Your task to perform on an android device: Empty the shopping cart on bestbuy.com. Search for "razer huntsman" on bestbuy.com, select the first entry, add it to the cart, then select checkout. Image 0: 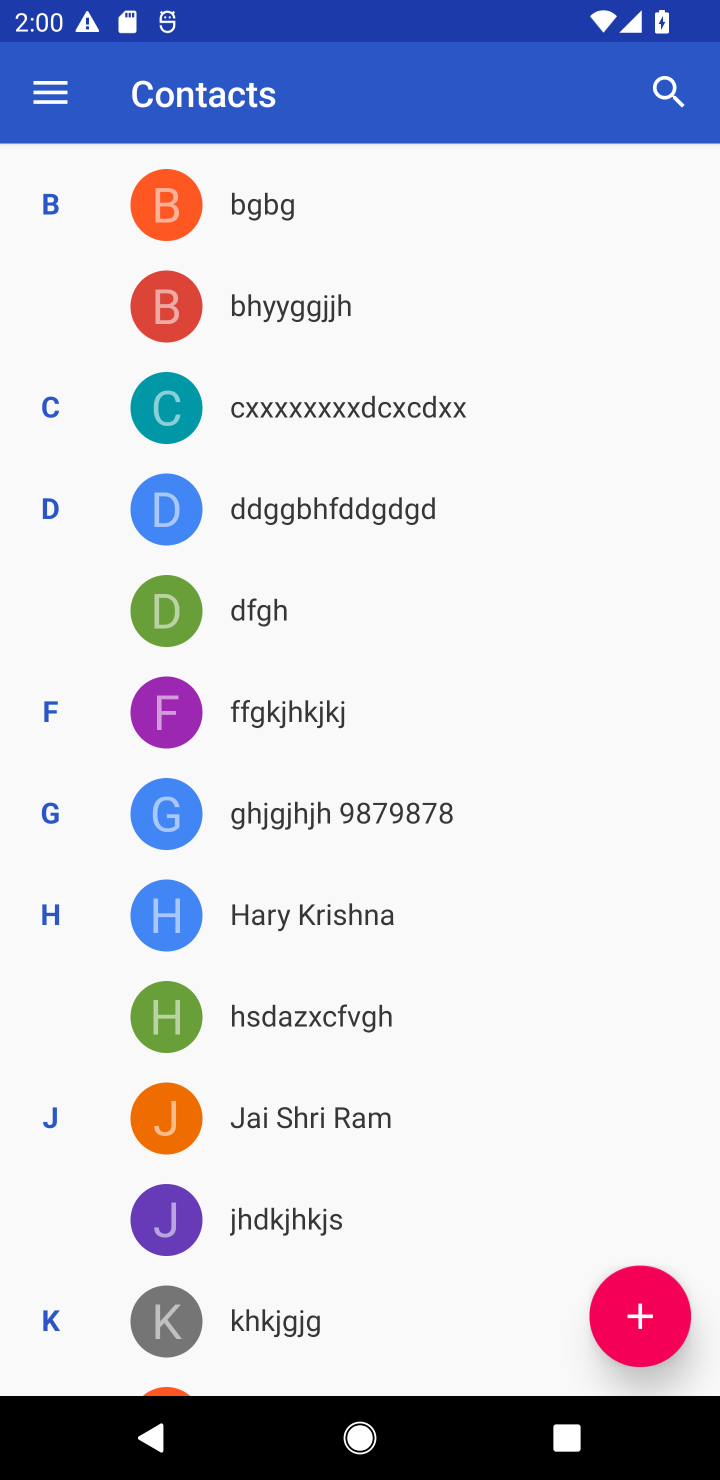
Step 0: press home button
Your task to perform on an android device: Empty the shopping cart on bestbuy.com. Search for "razer huntsman" on bestbuy.com, select the first entry, add it to the cart, then select checkout. Image 1: 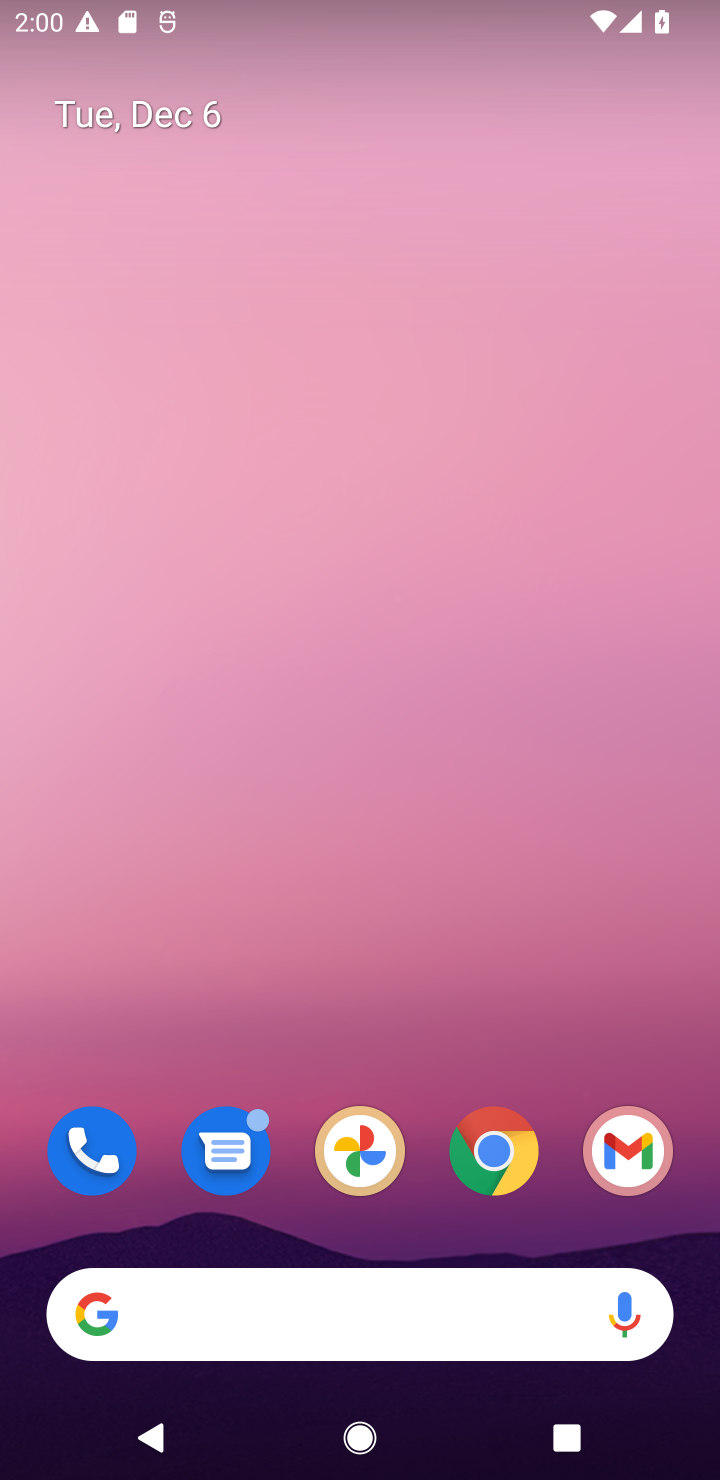
Step 1: click (502, 1160)
Your task to perform on an android device: Empty the shopping cart on bestbuy.com. Search for "razer huntsman" on bestbuy.com, select the first entry, add it to the cart, then select checkout. Image 2: 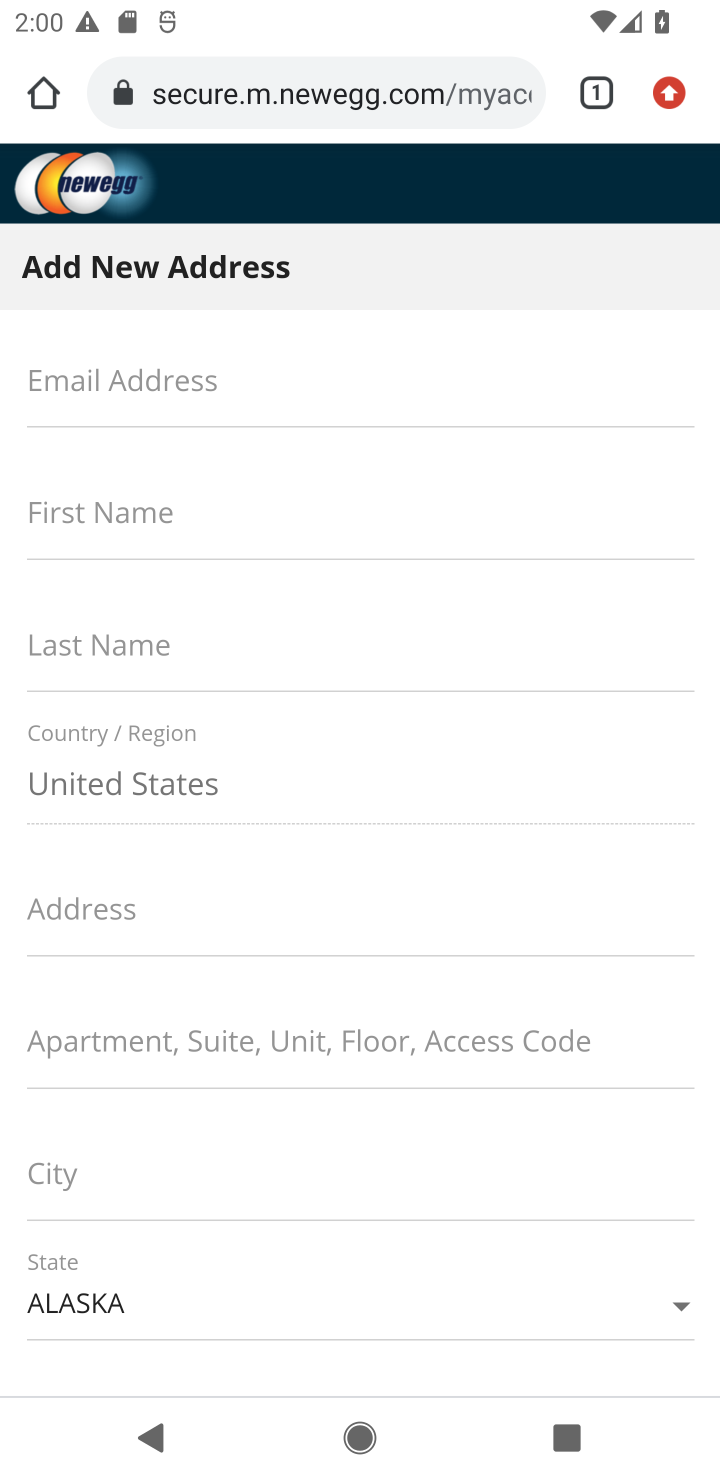
Step 2: click (285, 97)
Your task to perform on an android device: Empty the shopping cart on bestbuy.com. Search for "razer huntsman" on bestbuy.com, select the first entry, add it to the cart, then select checkout. Image 3: 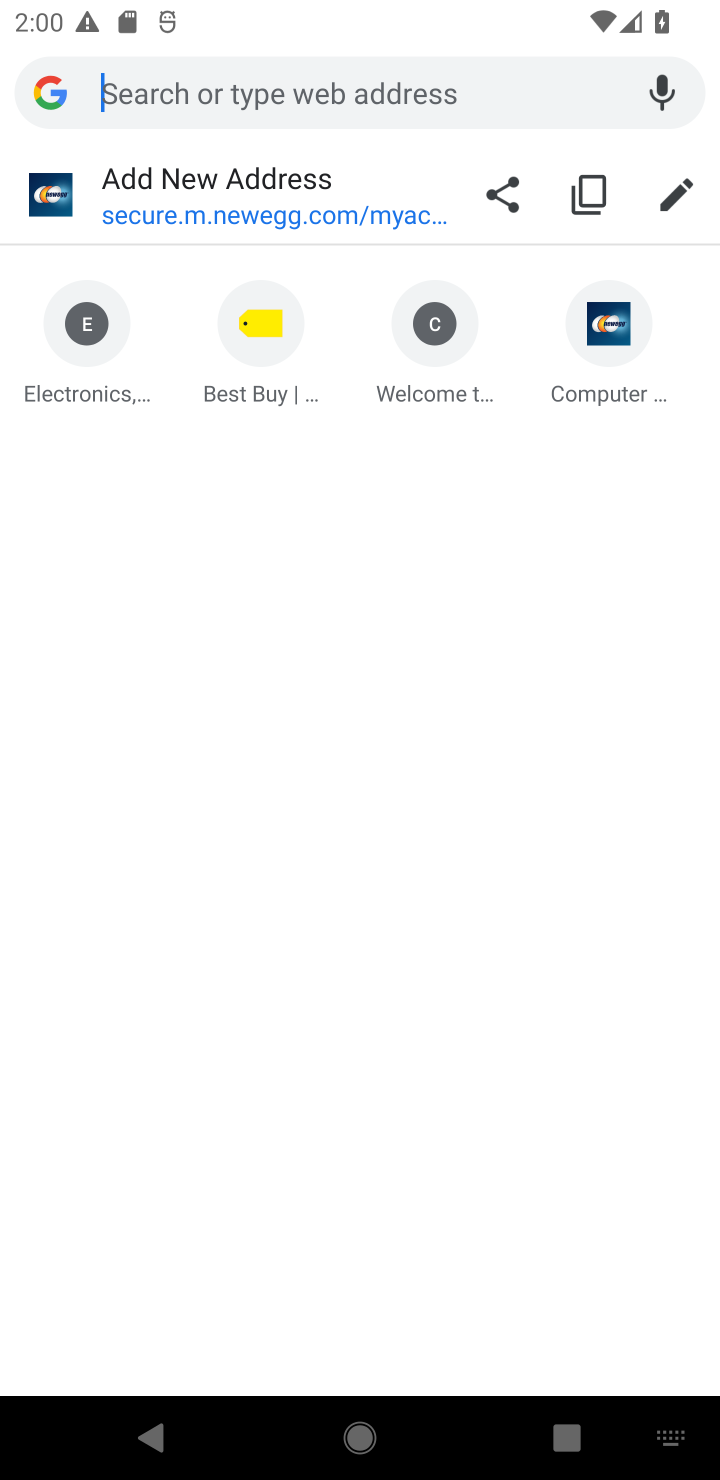
Step 3: click (254, 361)
Your task to perform on an android device: Empty the shopping cart on bestbuy.com. Search for "razer huntsman" on bestbuy.com, select the first entry, add it to the cart, then select checkout. Image 4: 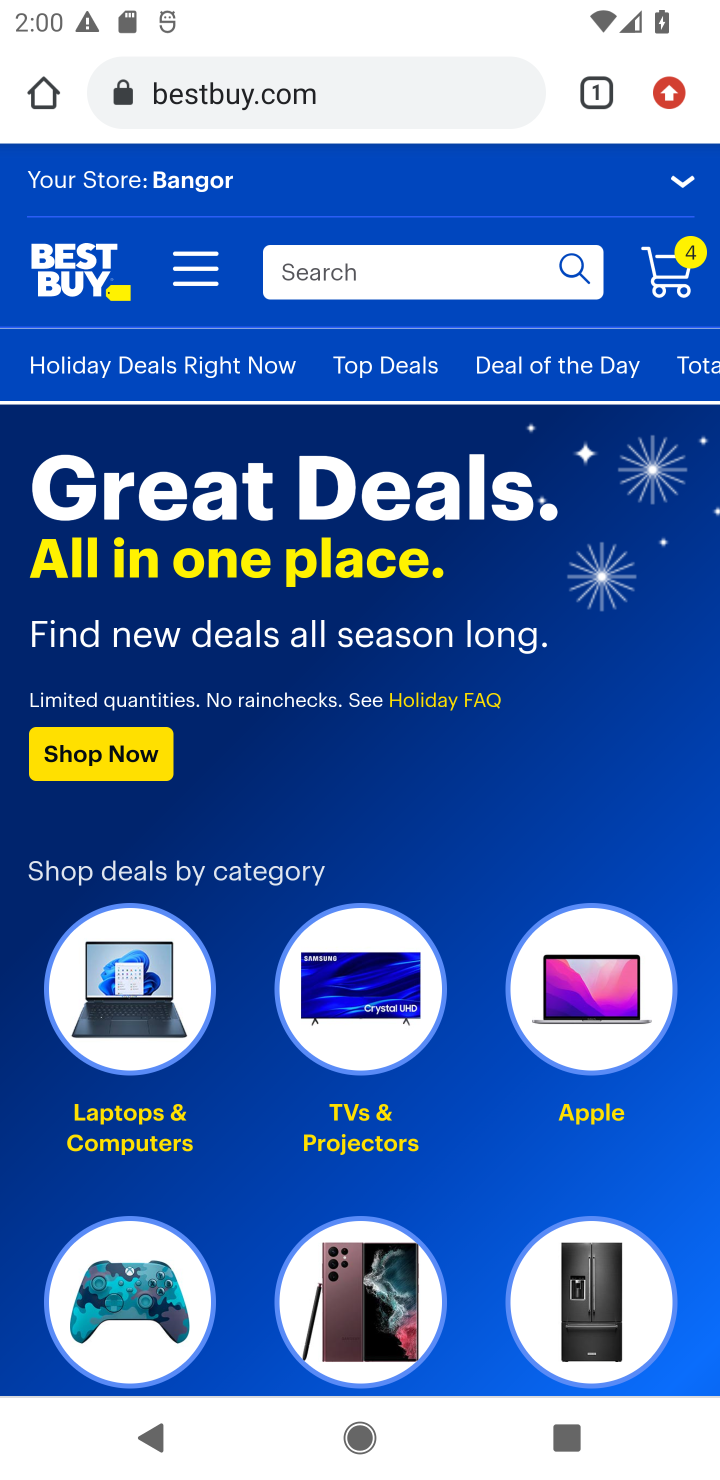
Step 4: click (668, 273)
Your task to perform on an android device: Empty the shopping cart on bestbuy.com. Search for "razer huntsman" on bestbuy.com, select the first entry, add it to the cart, then select checkout. Image 5: 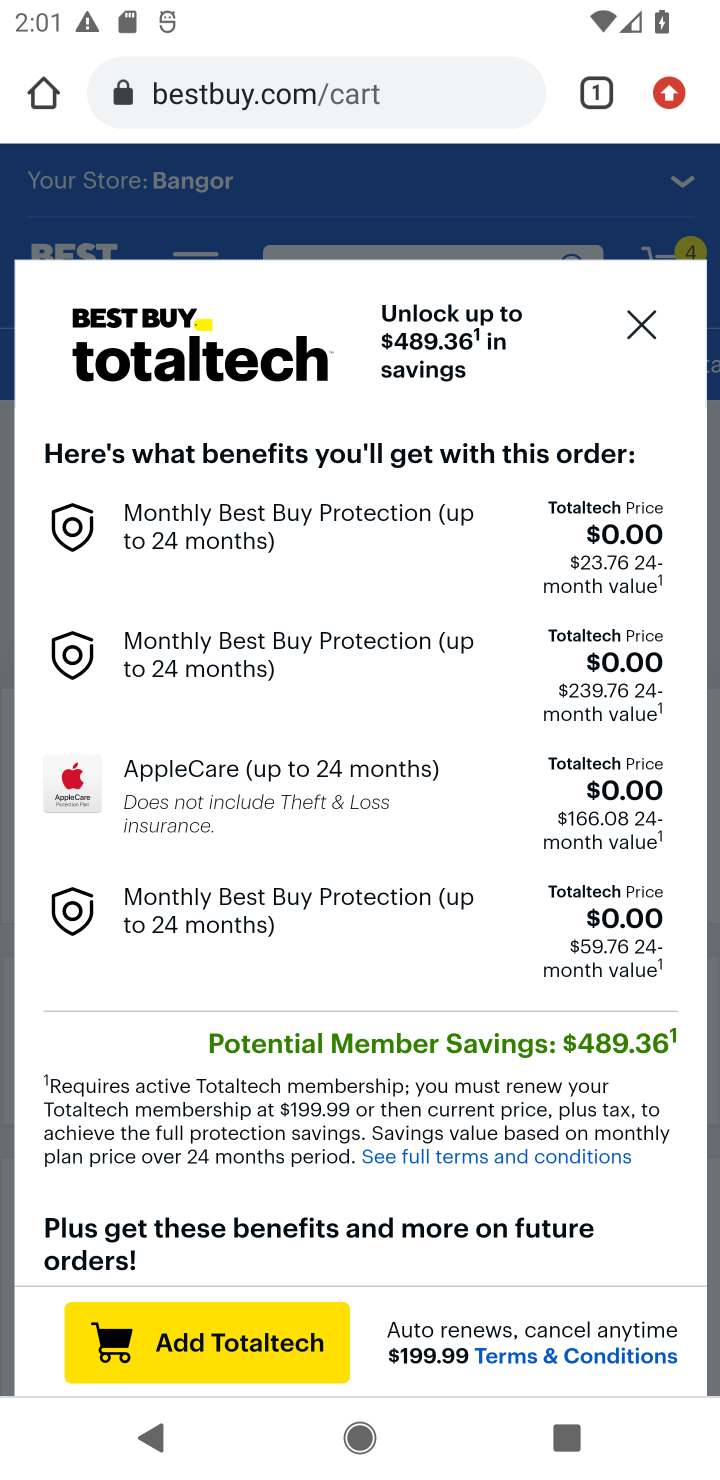
Step 5: click (652, 334)
Your task to perform on an android device: Empty the shopping cart on bestbuy.com. Search for "razer huntsman" on bestbuy.com, select the first entry, add it to the cart, then select checkout. Image 6: 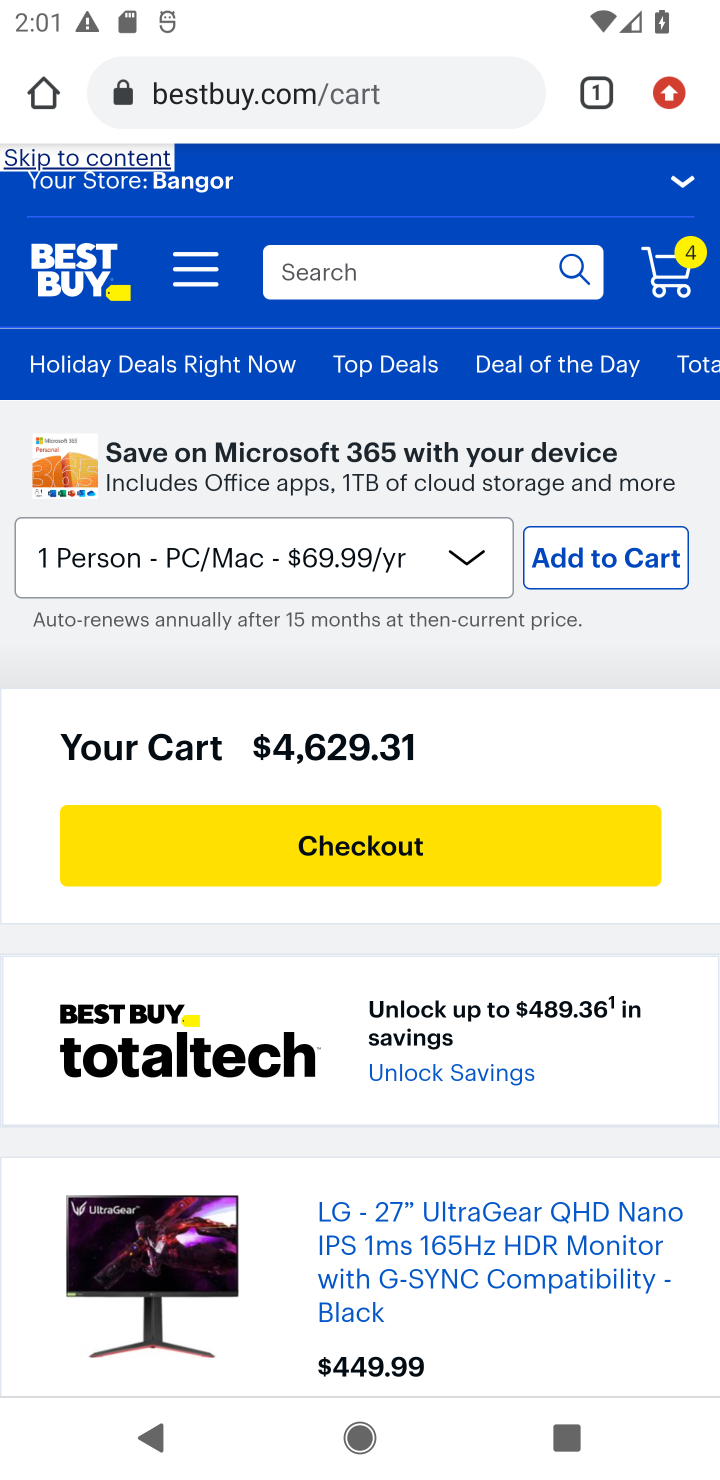
Step 6: drag from (514, 885) to (463, 284)
Your task to perform on an android device: Empty the shopping cart on bestbuy.com. Search for "razer huntsman" on bestbuy.com, select the first entry, add it to the cart, then select checkout. Image 7: 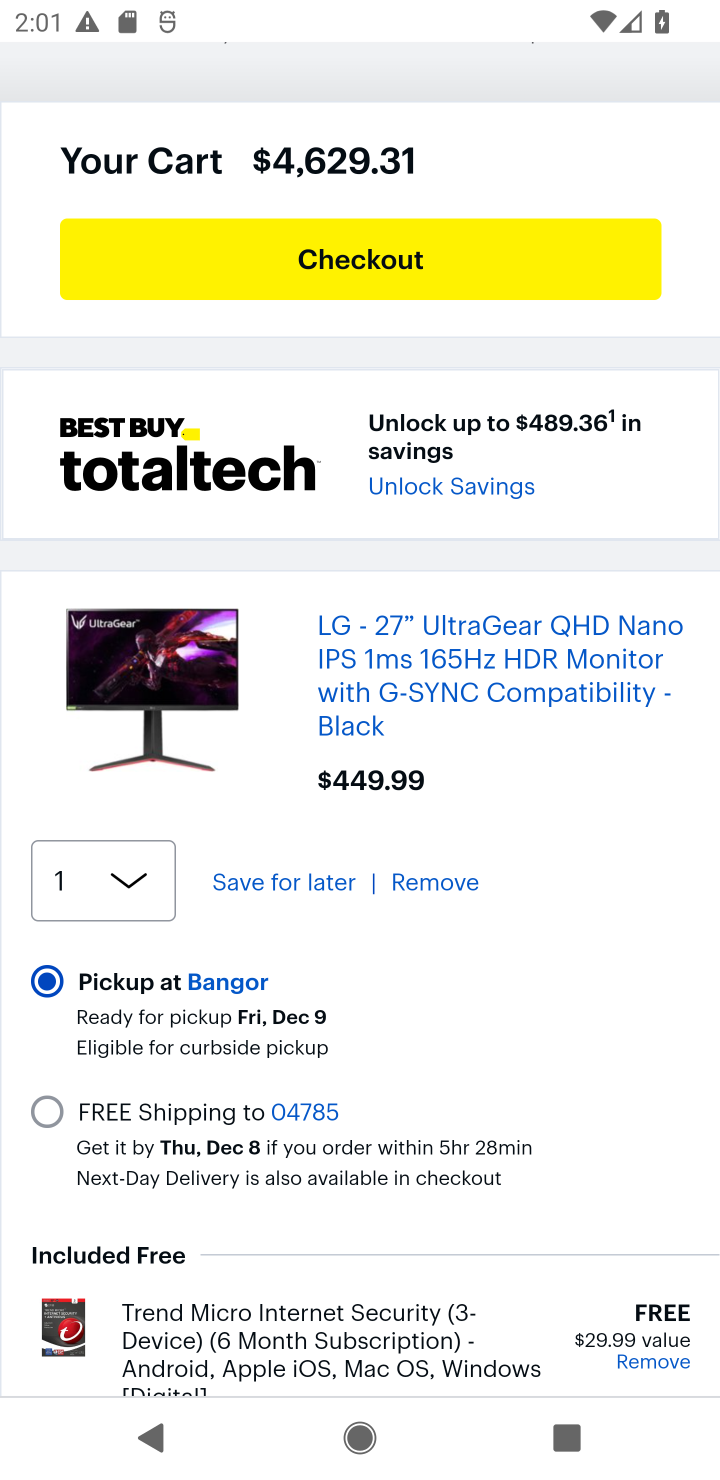
Step 7: click (419, 881)
Your task to perform on an android device: Empty the shopping cart on bestbuy.com. Search for "razer huntsman" on bestbuy.com, select the first entry, add it to the cart, then select checkout. Image 8: 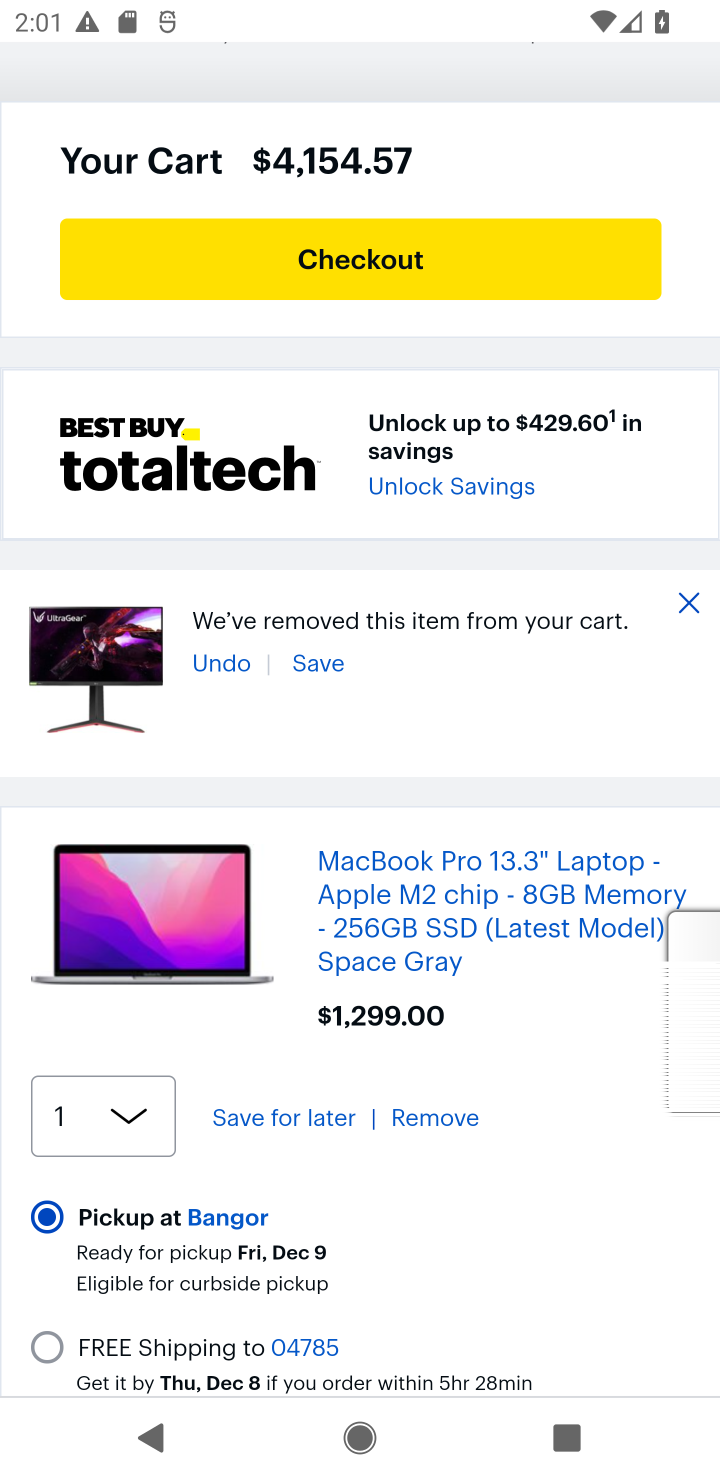
Step 8: click (437, 1118)
Your task to perform on an android device: Empty the shopping cart on bestbuy.com. Search for "razer huntsman" on bestbuy.com, select the first entry, add it to the cart, then select checkout. Image 9: 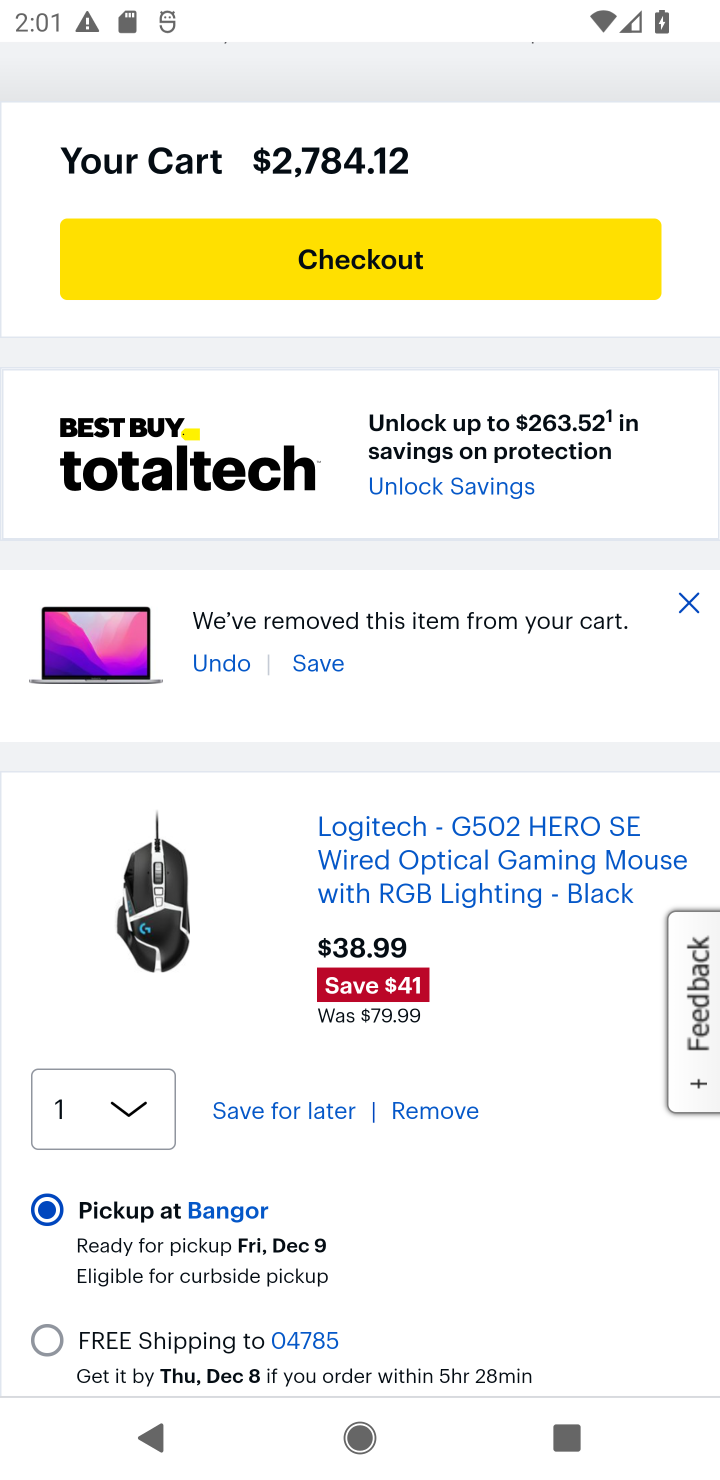
Step 9: click (437, 1118)
Your task to perform on an android device: Empty the shopping cart on bestbuy.com. Search for "razer huntsman" on bestbuy.com, select the first entry, add it to the cart, then select checkout. Image 10: 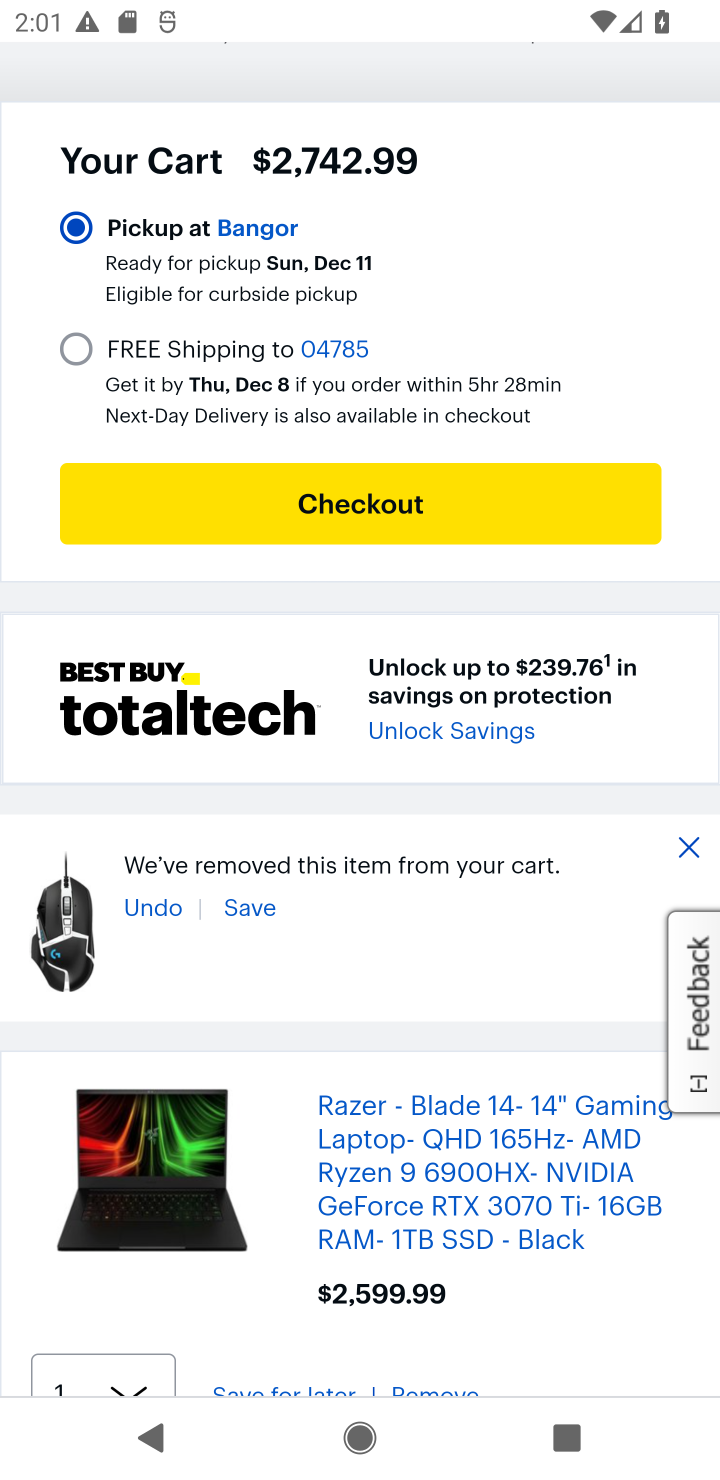
Step 10: drag from (441, 1021) to (487, 589)
Your task to perform on an android device: Empty the shopping cart on bestbuy.com. Search for "razer huntsman" on bestbuy.com, select the first entry, add it to the cart, then select checkout. Image 11: 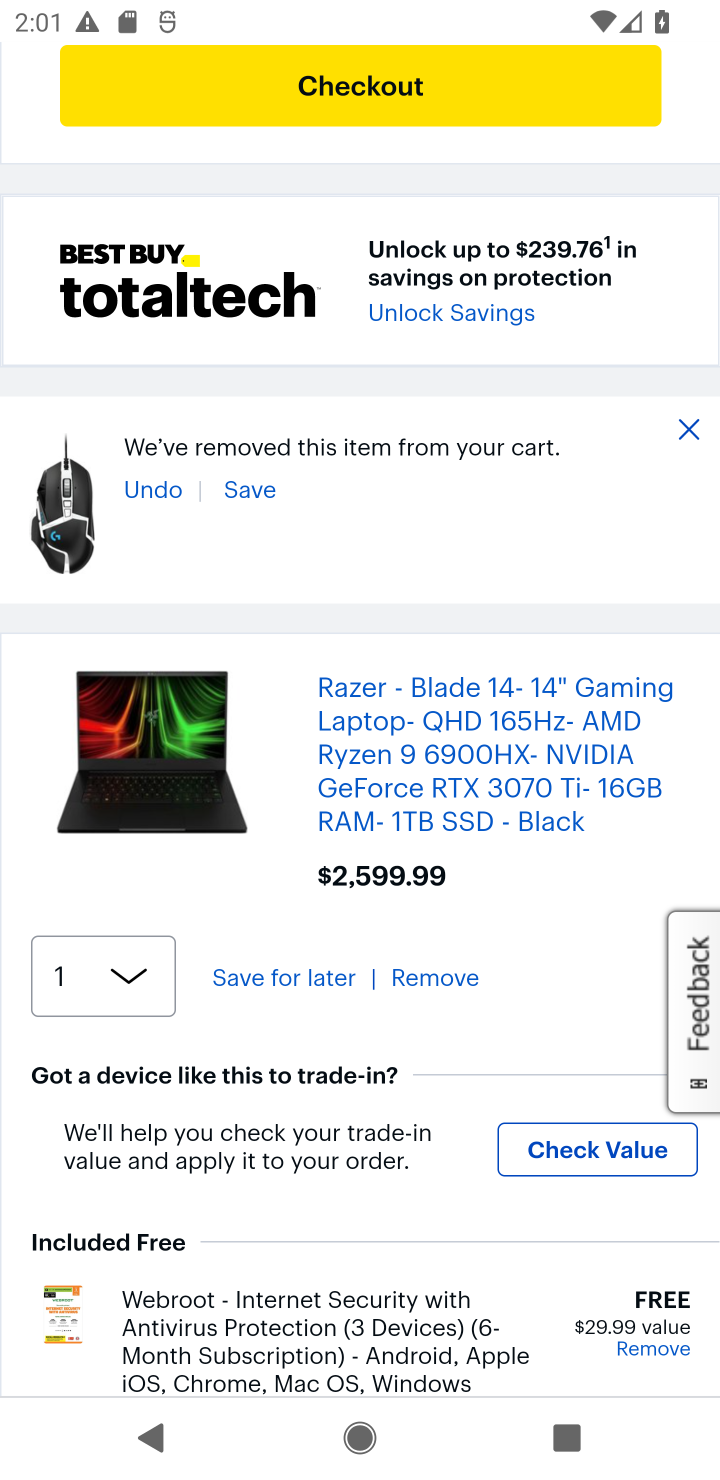
Step 11: click (446, 994)
Your task to perform on an android device: Empty the shopping cart on bestbuy.com. Search for "razer huntsman" on bestbuy.com, select the first entry, add it to the cart, then select checkout. Image 12: 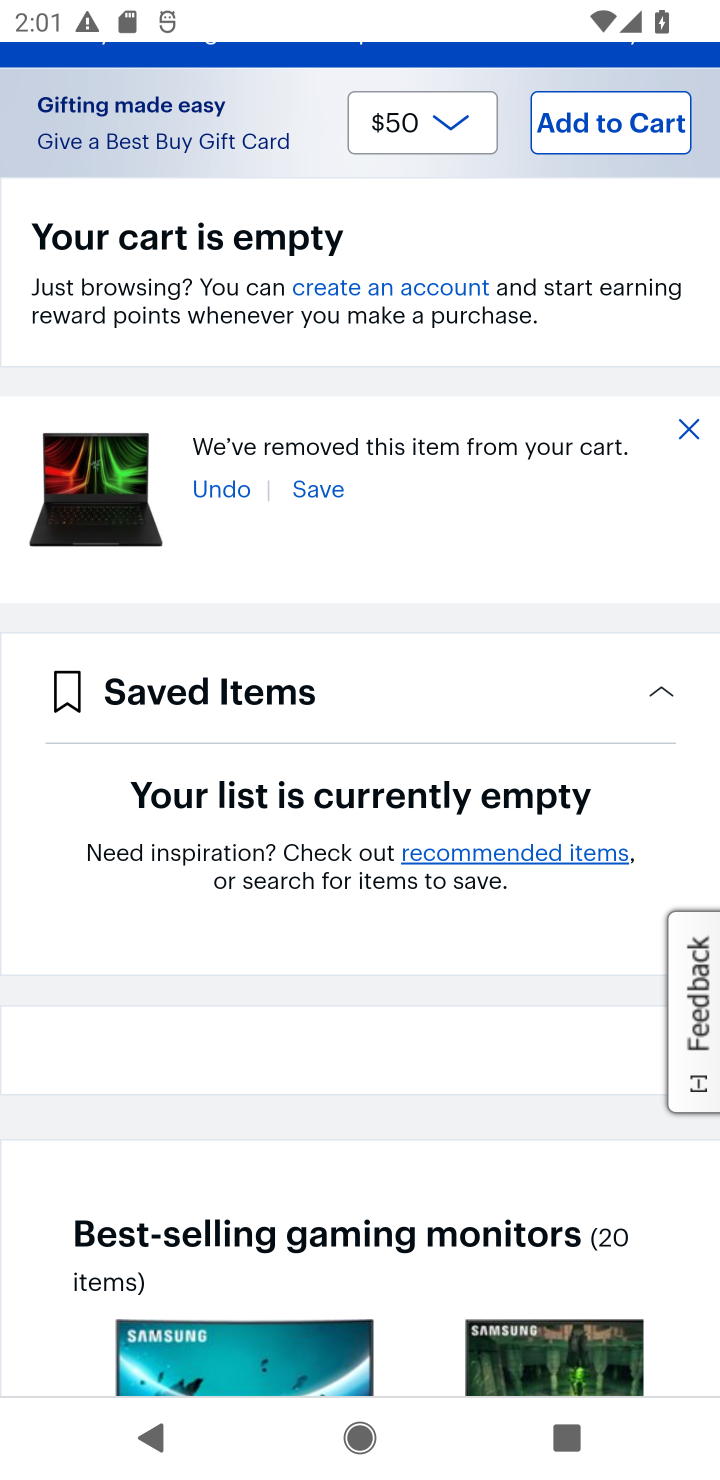
Step 12: drag from (493, 254) to (523, 903)
Your task to perform on an android device: Empty the shopping cart on bestbuy.com. Search for "razer huntsman" on bestbuy.com, select the first entry, add it to the cart, then select checkout. Image 13: 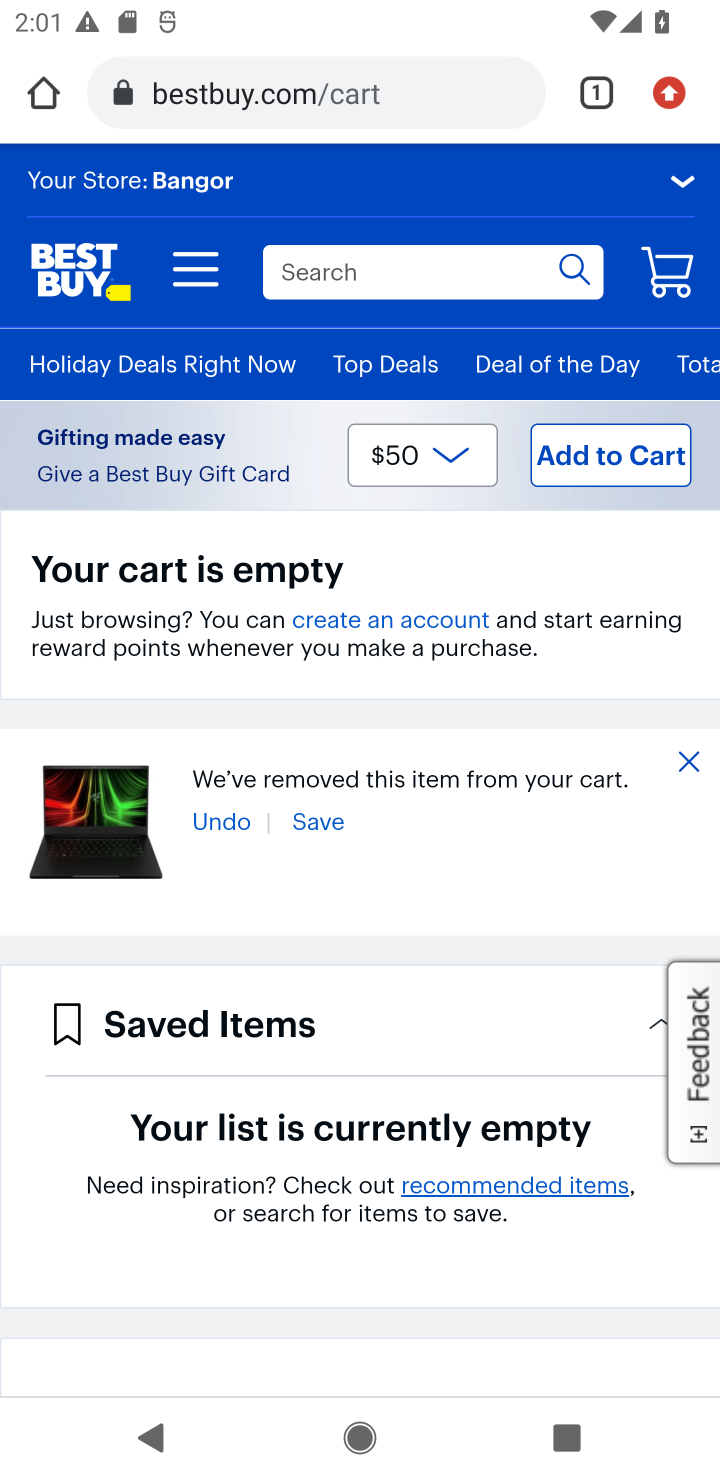
Step 13: click (341, 269)
Your task to perform on an android device: Empty the shopping cart on bestbuy.com. Search for "razer huntsman" on bestbuy.com, select the first entry, add it to the cart, then select checkout. Image 14: 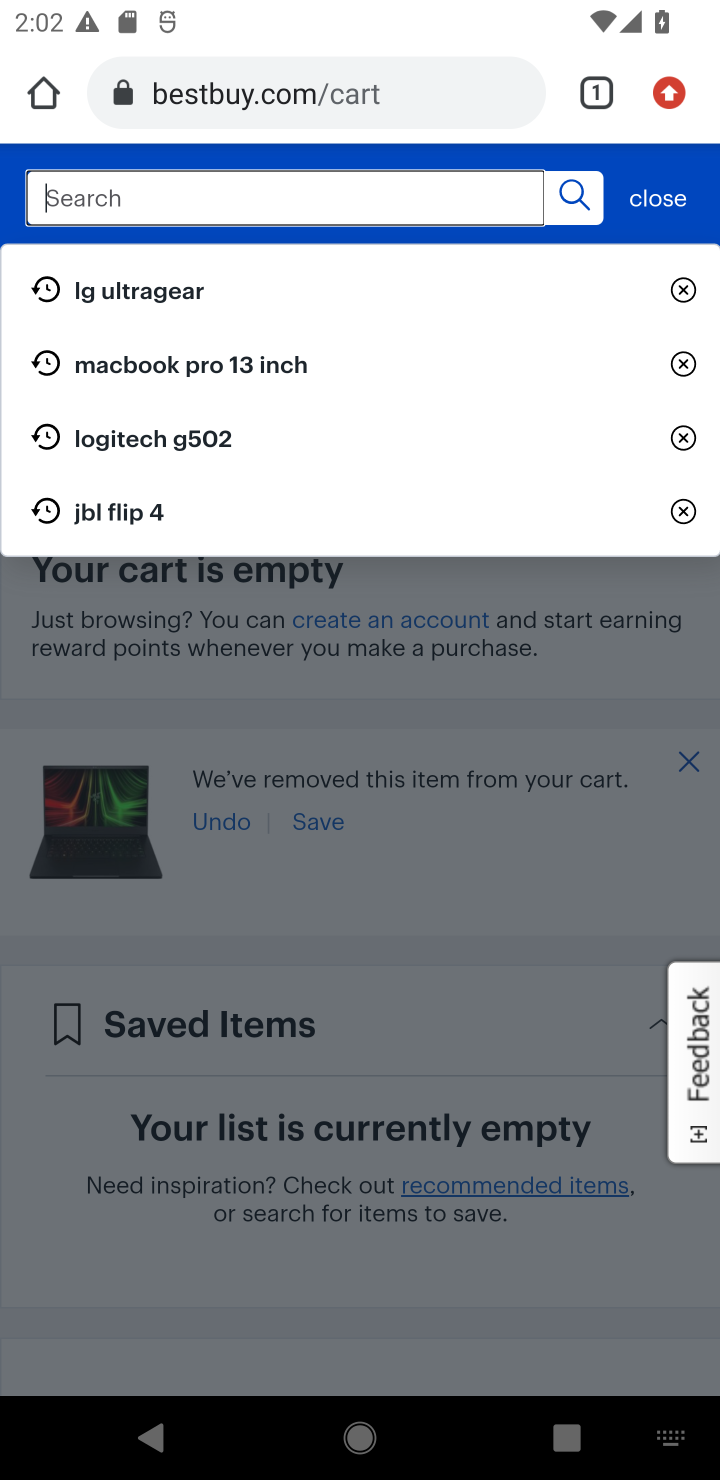
Step 14: type "razer huntsman"
Your task to perform on an android device: Empty the shopping cart on bestbuy.com. Search for "razer huntsman" on bestbuy.com, select the first entry, add it to the cart, then select checkout. Image 15: 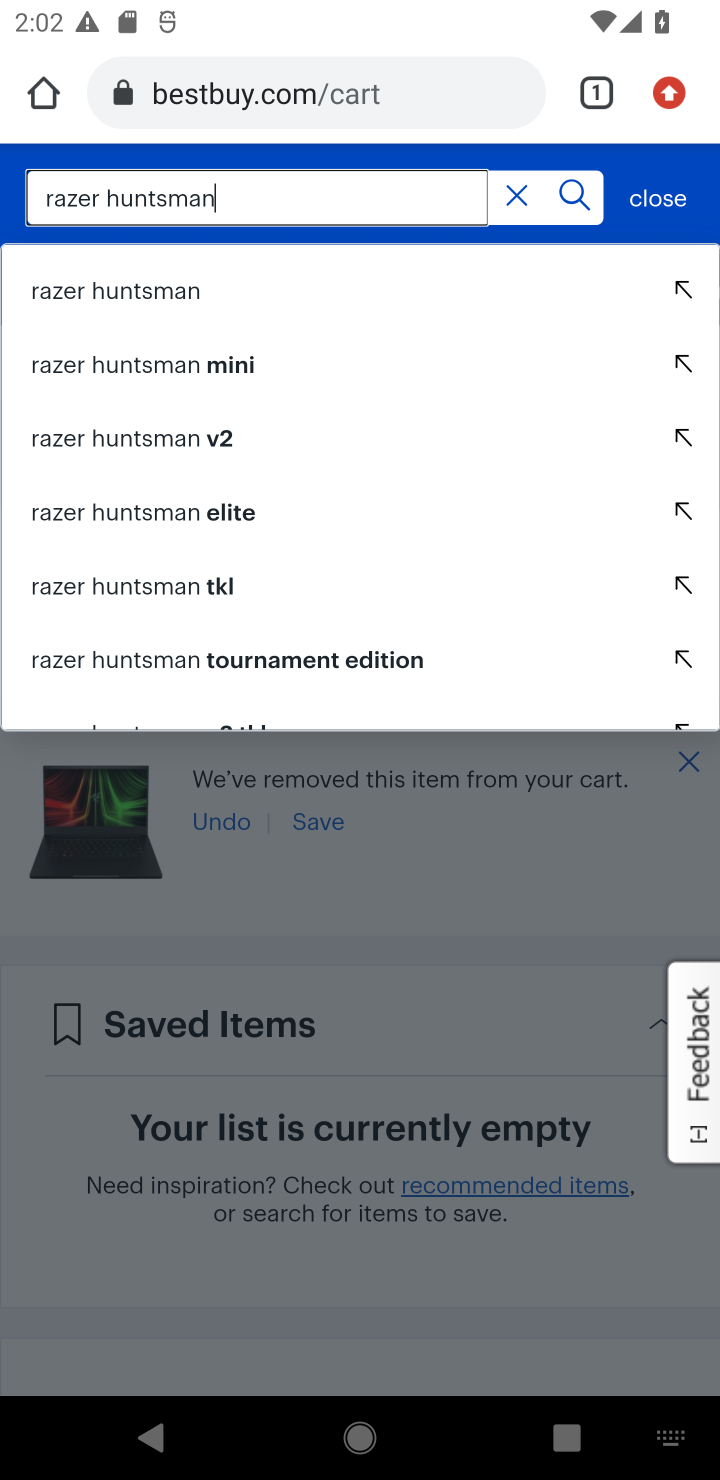
Step 15: click (121, 301)
Your task to perform on an android device: Empty the shopping cart on bestbuy.com. Search for "razer huntsman" on bestbuy.com, select the first entry, add it to the cart, then select checkout. Image 16: 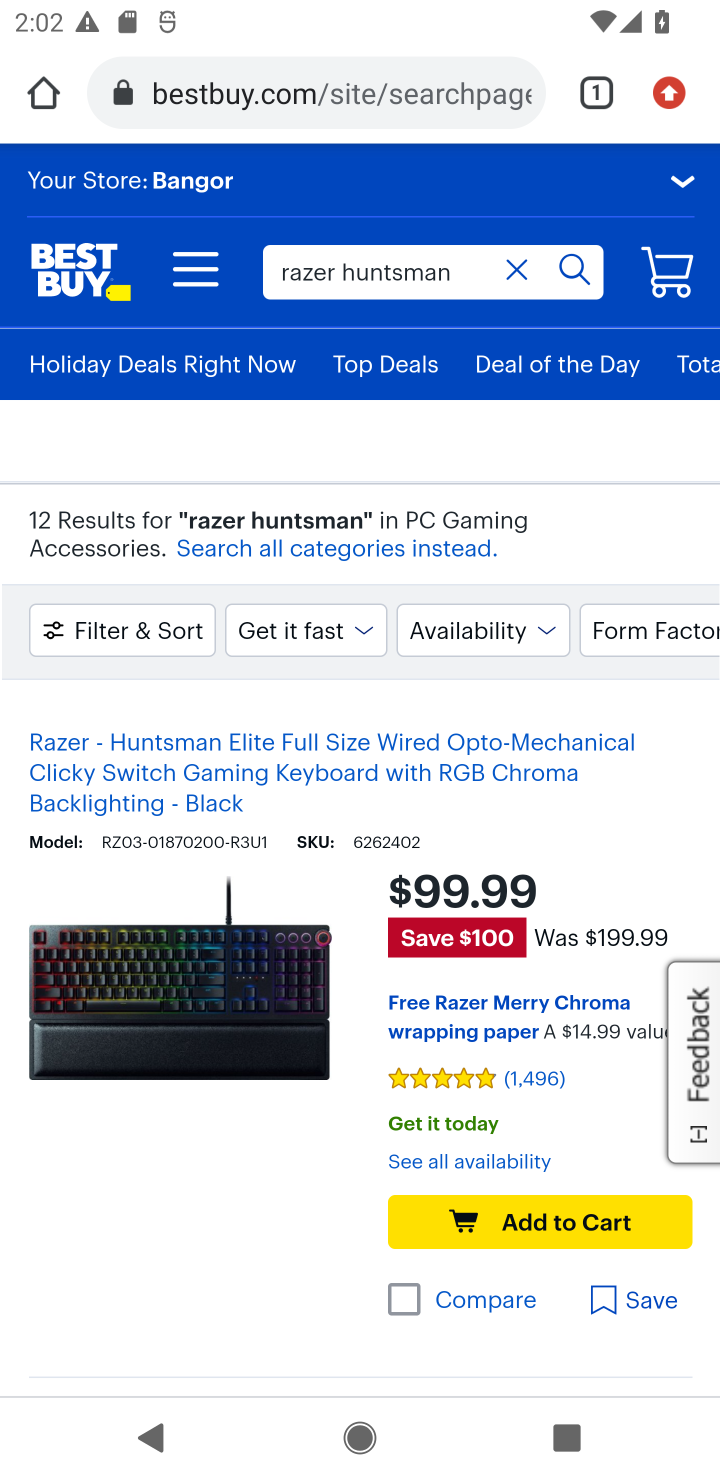
Step 16: click (491, 1220)
Your task to perform on an android device: Empty the shopping cart on bestbuy.com. Search for "razer huntsman" on bestbuy.com, select the first entry, add it to the cart, then select checkout. Image 17: 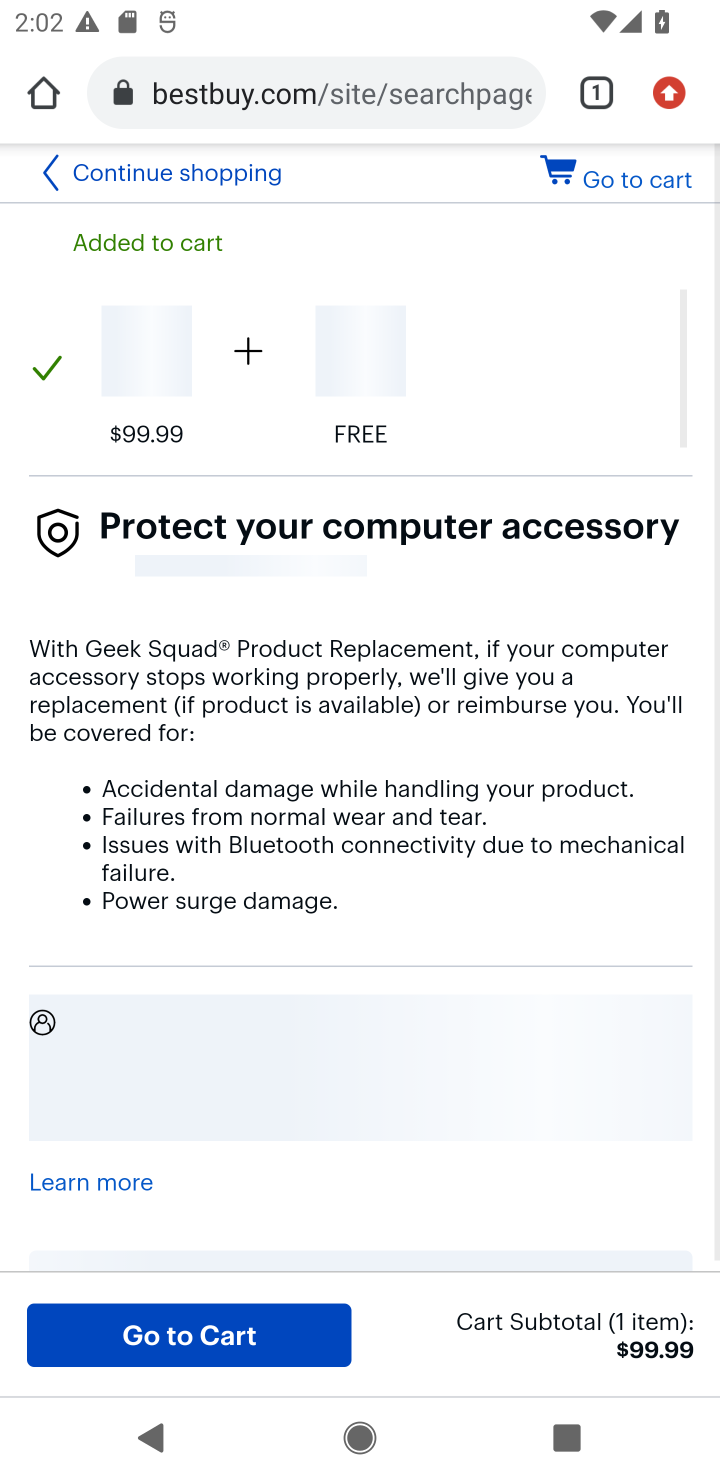
Step 17: click (635, 183)
Your task to perform on an android device: Empty the shopping cart on bestbuy.com. Search for "razer huntsman" on bestbuy.com, select the first entry, add it to the cart, then select checkout. Image 18: 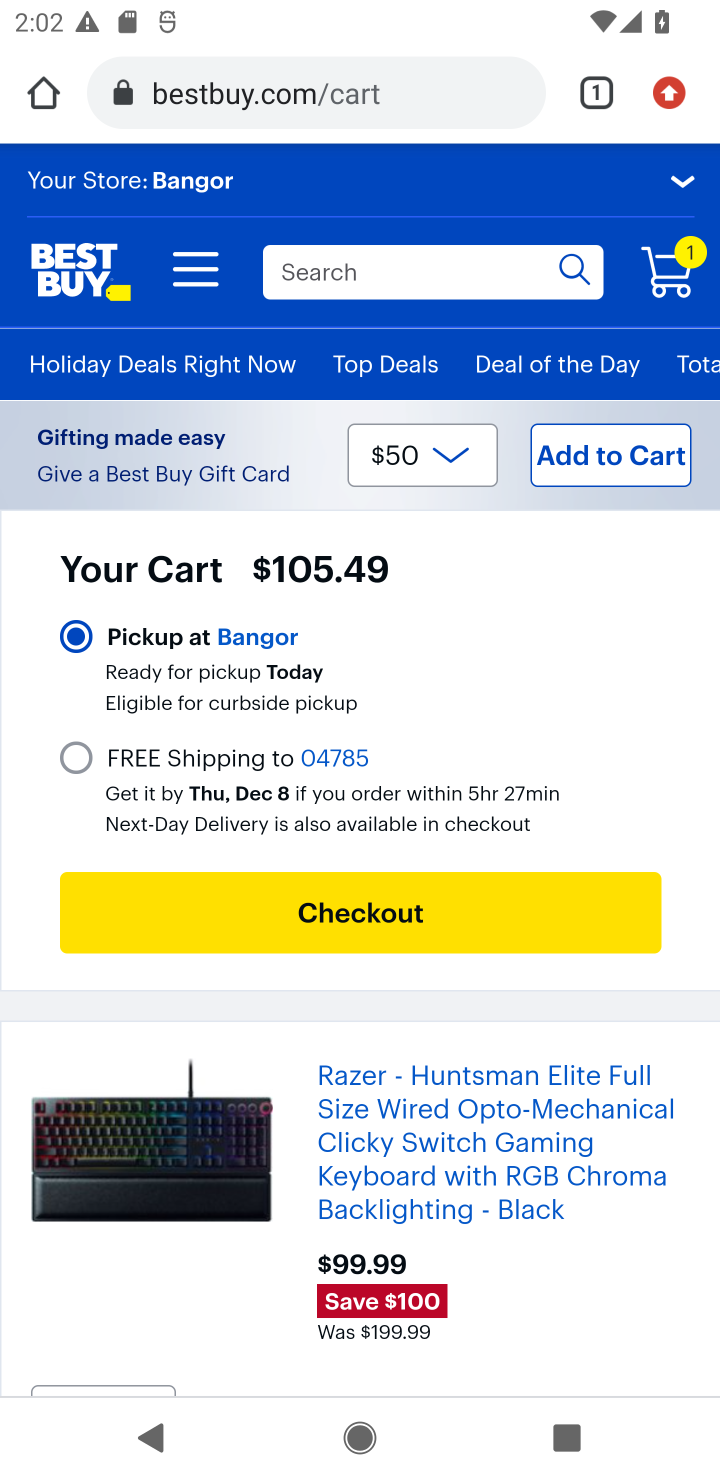
Step 18: click (364, 920)
Your task to perform on an android device: Empty the shopping cart on bestbuy.com. Search for "razer huntsman" on bestbuy.com, select the first entry, add it to the cart, then select checkout. Image 19: 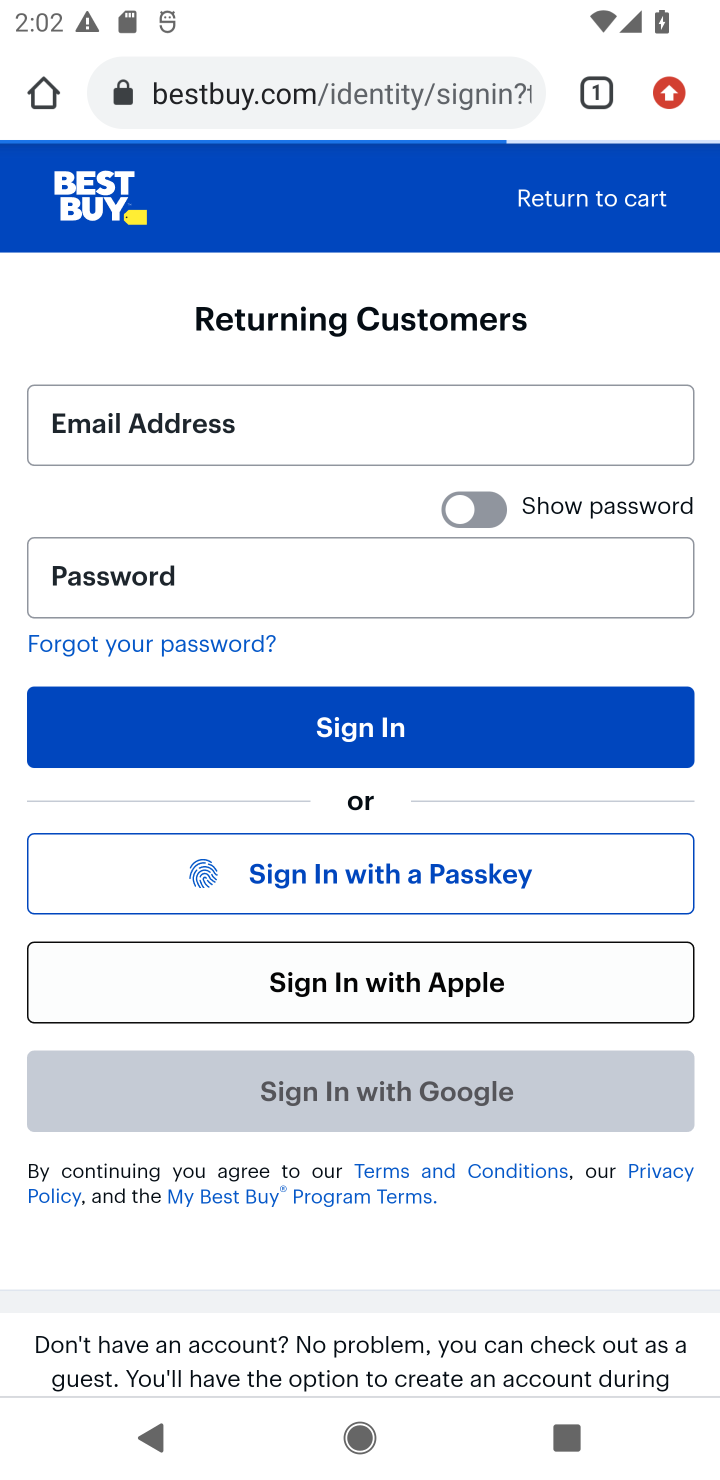
Step 19: task complete